Your task to perform on an android device: Go to Yahoo.com Image 0: 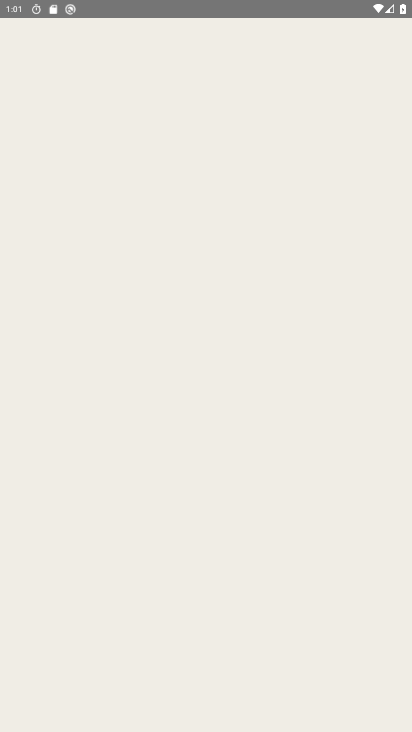
Step 0: drag from (201, 323) to (184, 81)
Your task to perform on an android device: Go to Yahoo.com Image 1: 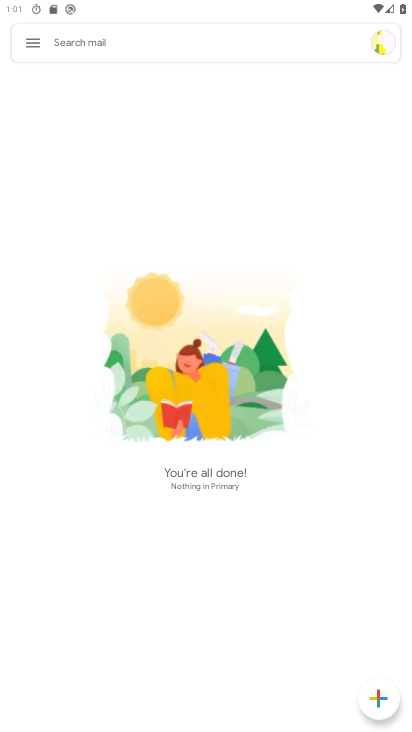
Step 1: press home button
Your task to perform on an android device: Go to Yahoo.com Image 2: 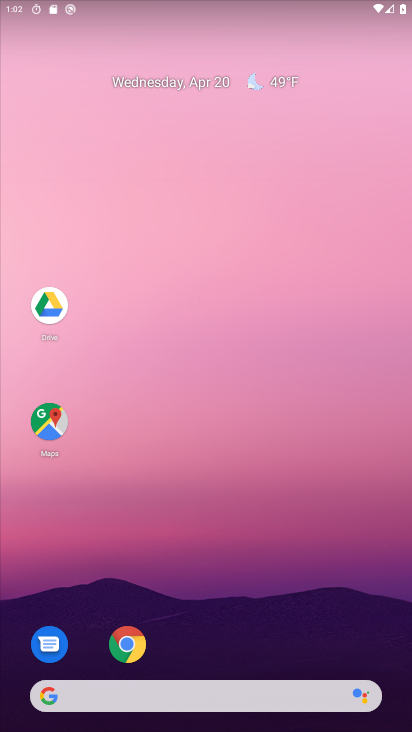
Step 2: click (130, 651)
Your task to perform on an android device: Go to Yahoo.com Image 3: 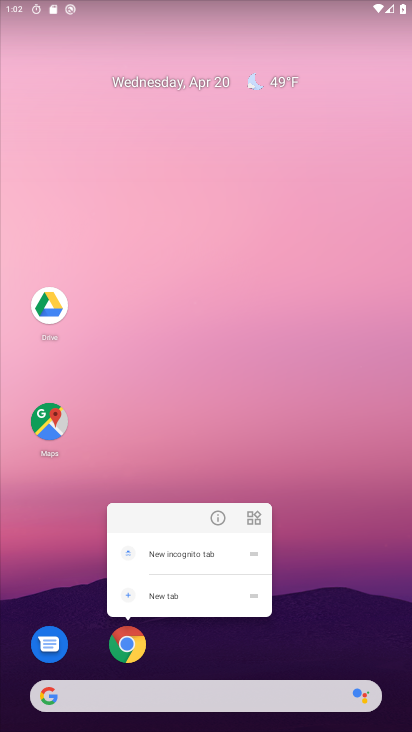
Step 3: click (118, 655)
Your task to perform on an android device: Go to Yahoo.com Image 4: 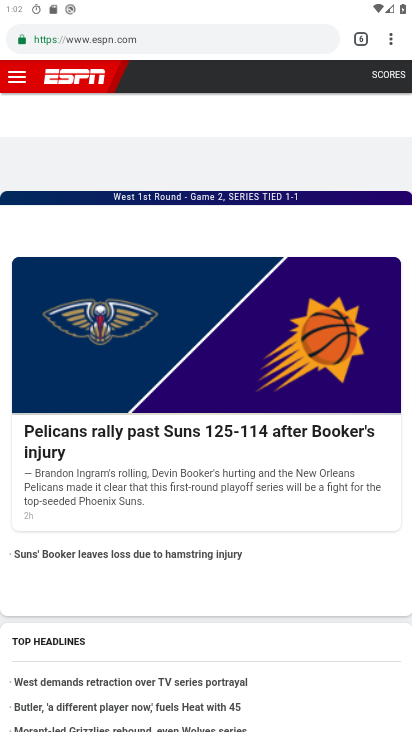
Step 4: click (364, 37)
Your task to perform on an android device: Go to Yahoo.com Image 5: 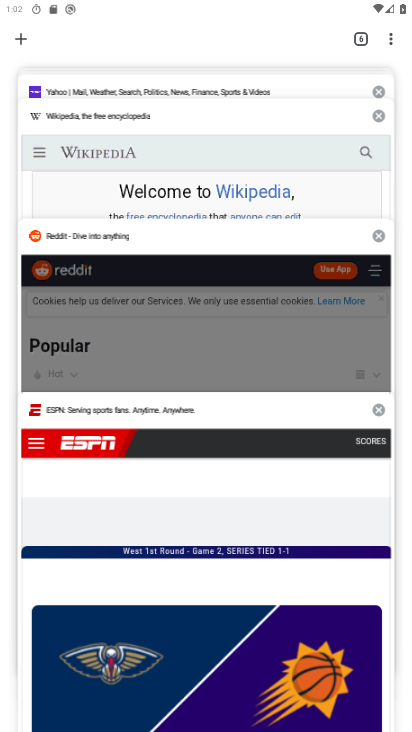
Step 5: click (18, 37)
Your task to perform on an android device: Go to Yahoo.com Image 6: 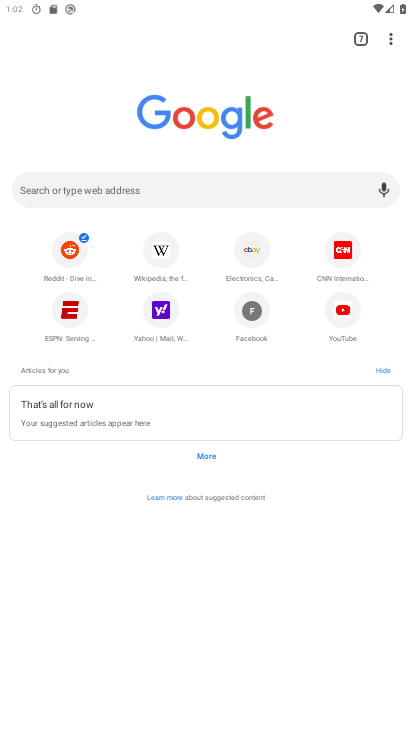
Step 6: click (155, 309)
Your task to perform on an android device: Go to Yahoo.com Image 7: 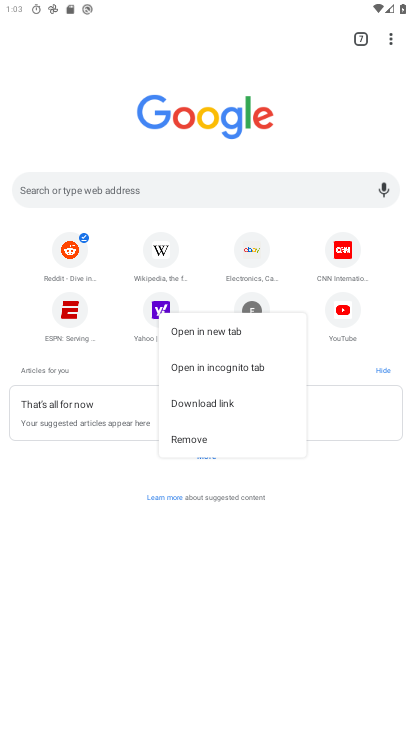
Step 7: click (152, 308)
Your task to perform on an android device: Go to Yahoo.com Image 8: 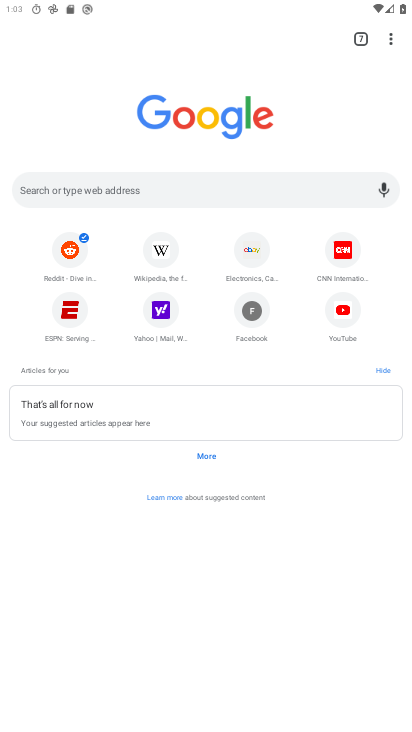
Step 8: click (162, 307)
Your task to perform on an android device: Go to Yahoo.com Image 9: 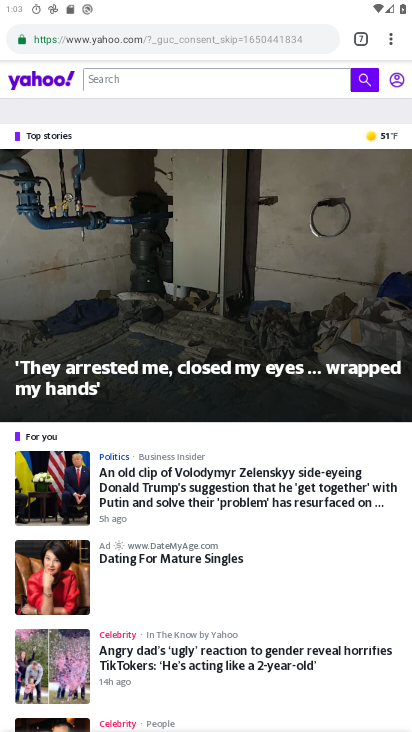
Step 9: task complete